Your task to perform on an android device: Open location settings Image 0: 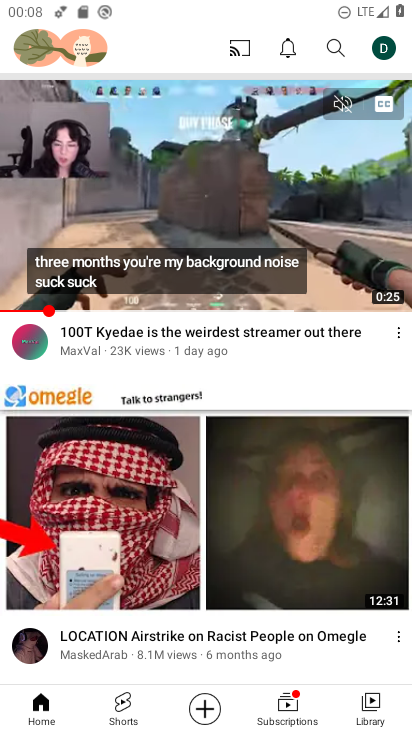
Step 0: press home button
Your task to perform on an android device: Open location settings Image 1: 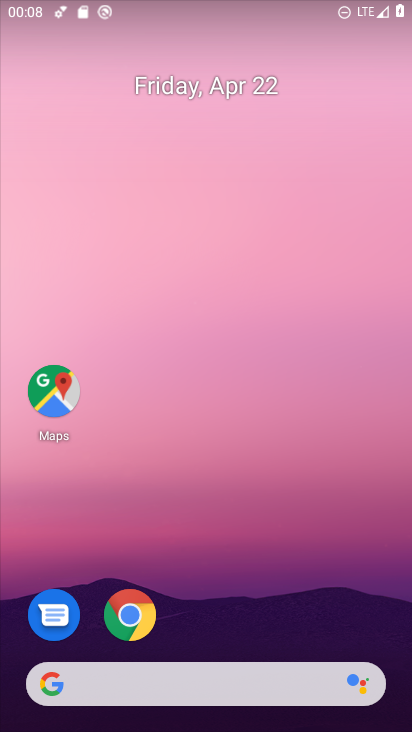
Step 1: drag from (224, 647) to (222, 118)
Your task to perform on an android device: Open location settings Image 2: 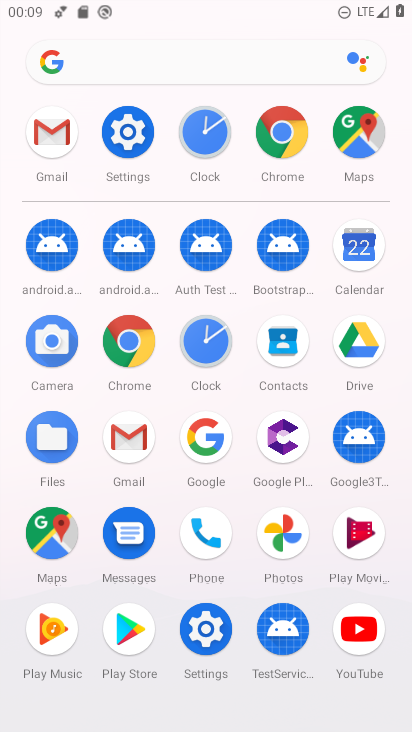
Step 2: click (201, 623)
Your task to perform on an android device: Open location settings Image 3: 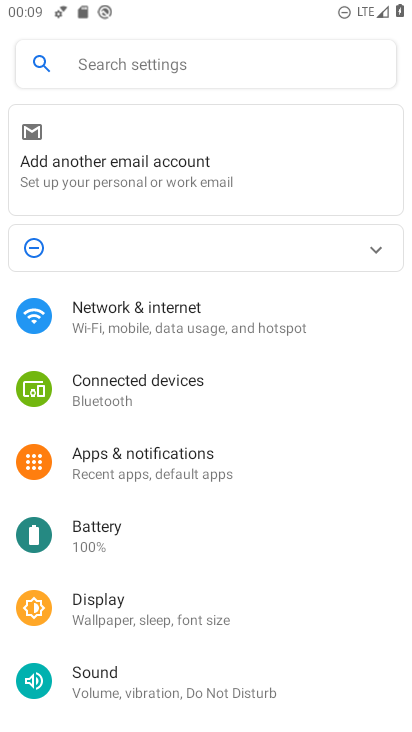
Step 3: drag from (186, 662) to (203, 216)
Your task to perform on an android device: Open location settings Image 4: 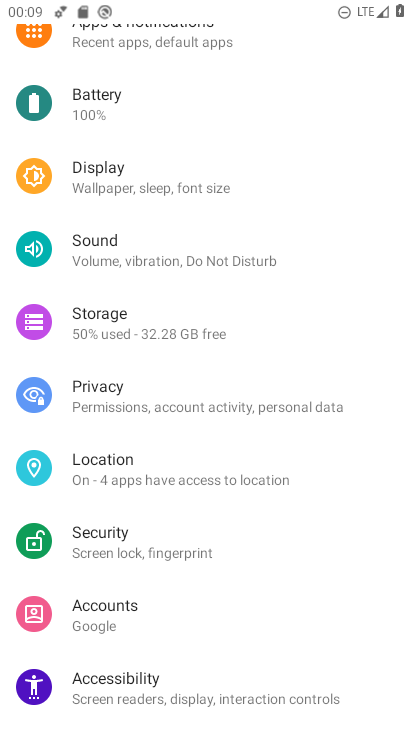
Step 4: click (143, 459)
Your task to perform on an android device: Open location settings Image 5: 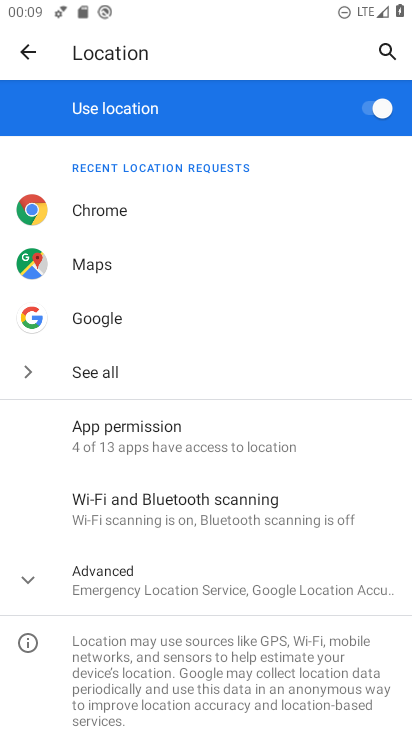
Step 5: click (27, 578)
Your task to perform on an android device: Open location settings Image 6: 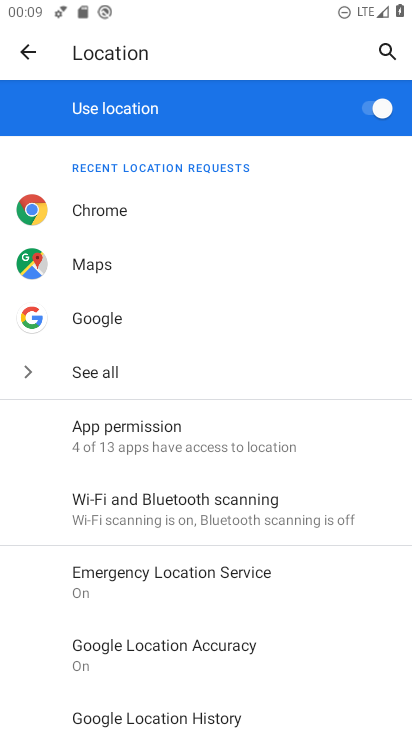
Step 6: task complete